Your task to perform on an android device: Go to Google Image 0: 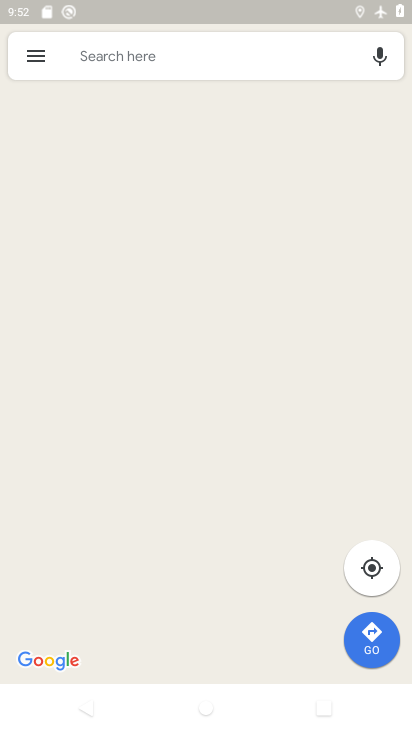
Step 0: press home button
Your task to perform on an android device: Go to Google Image 1: 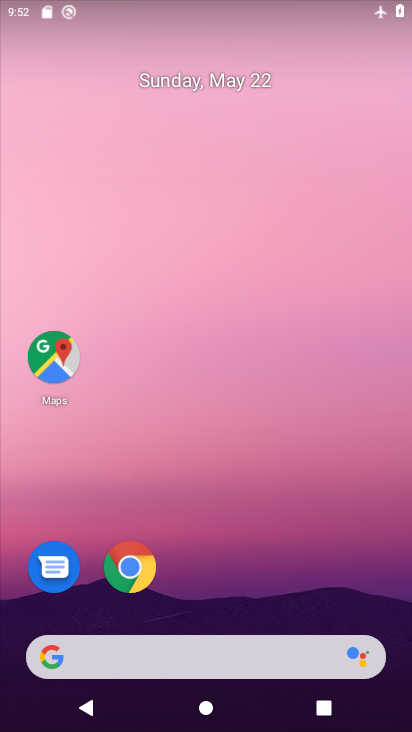
Step 1: drag from (228, 620) to (233, 3)
Your task to perform on an android device: Go to Google Image 2: 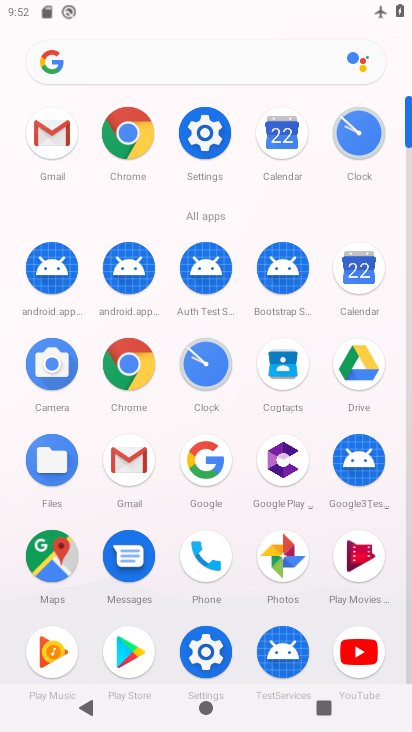
Step 2: click (206, 453)
Your task to perform on an android device: Go to Google Image 3: 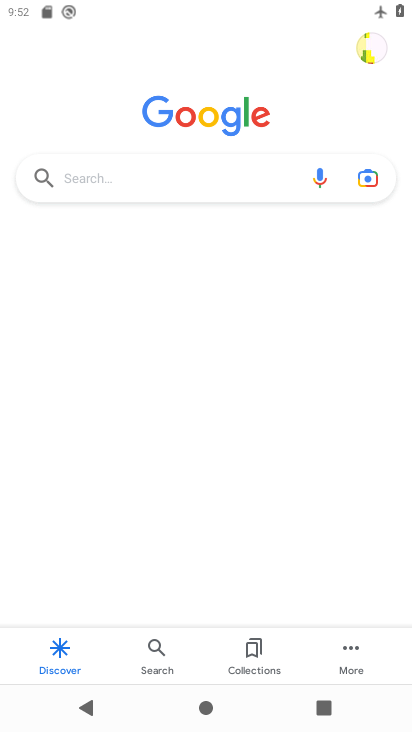
Step 3: drag from (199, 596) to (192, 397)
Your task to perform on an android device: Go to Google Image 4: 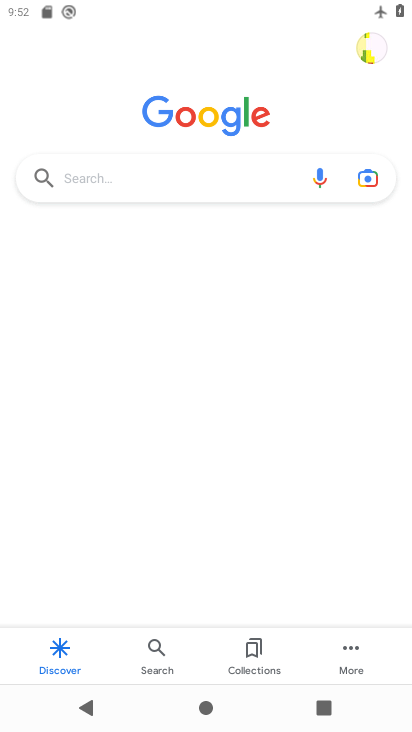
Step 4: click (200, 343)
Your task to perform on an android device: Go to Google Image 5: 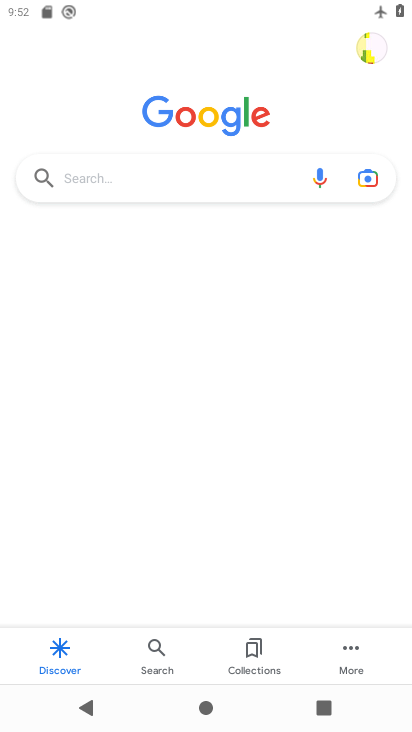
Step 5: task complete